Your task to perform on an android device: check google app version Image 0: 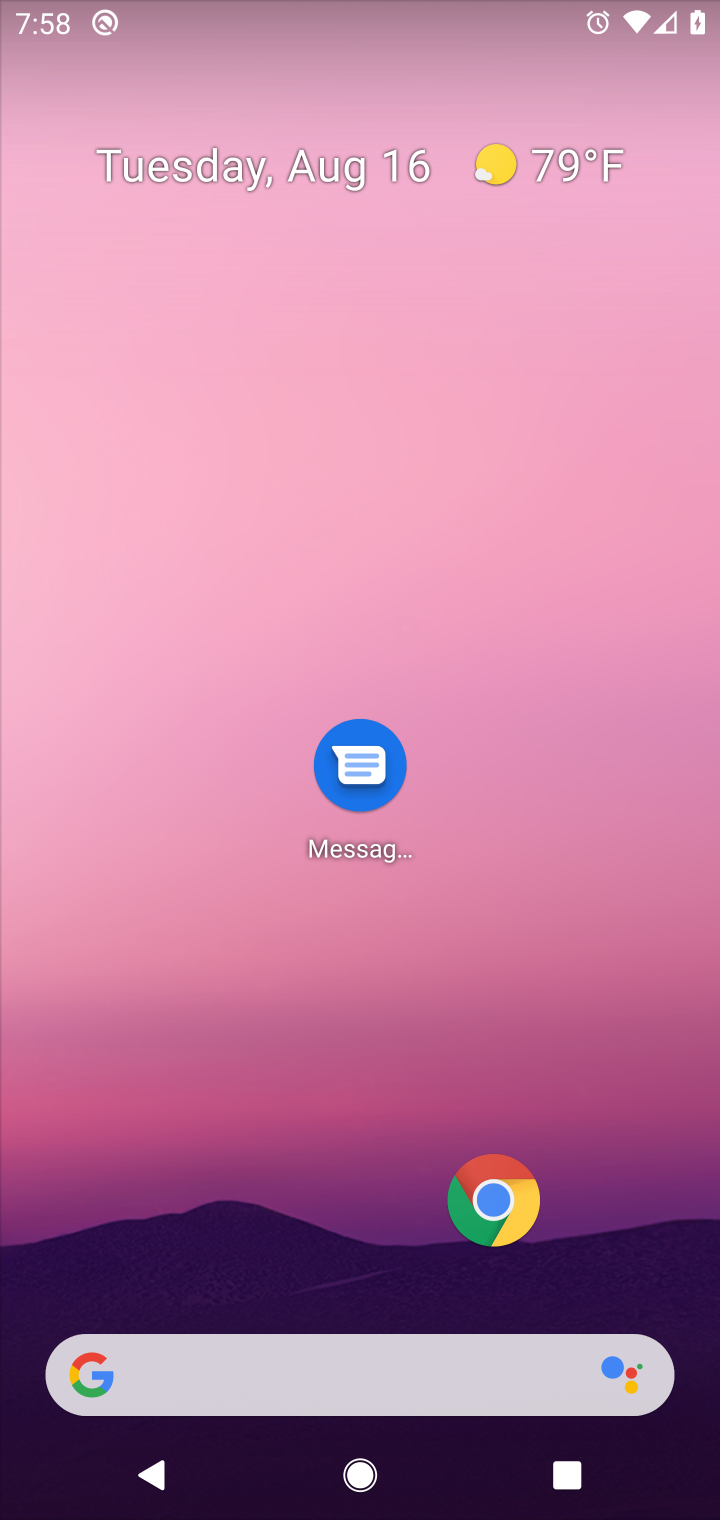
Step 0: click (653, 801)
Your task to perform on an android device: check google app version Image 1: 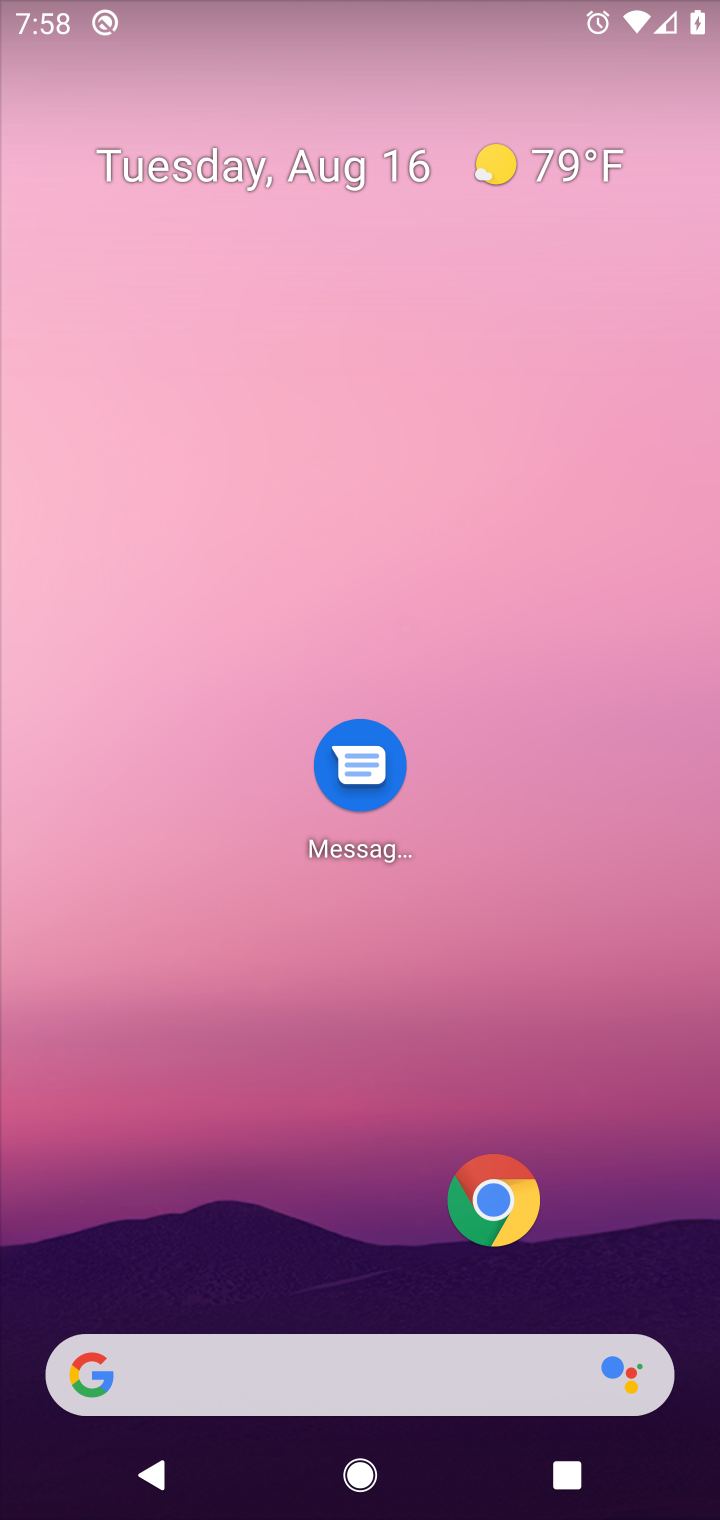
Step 1: task complete